Your task to perform on an android device: Open the downloads Image 0: 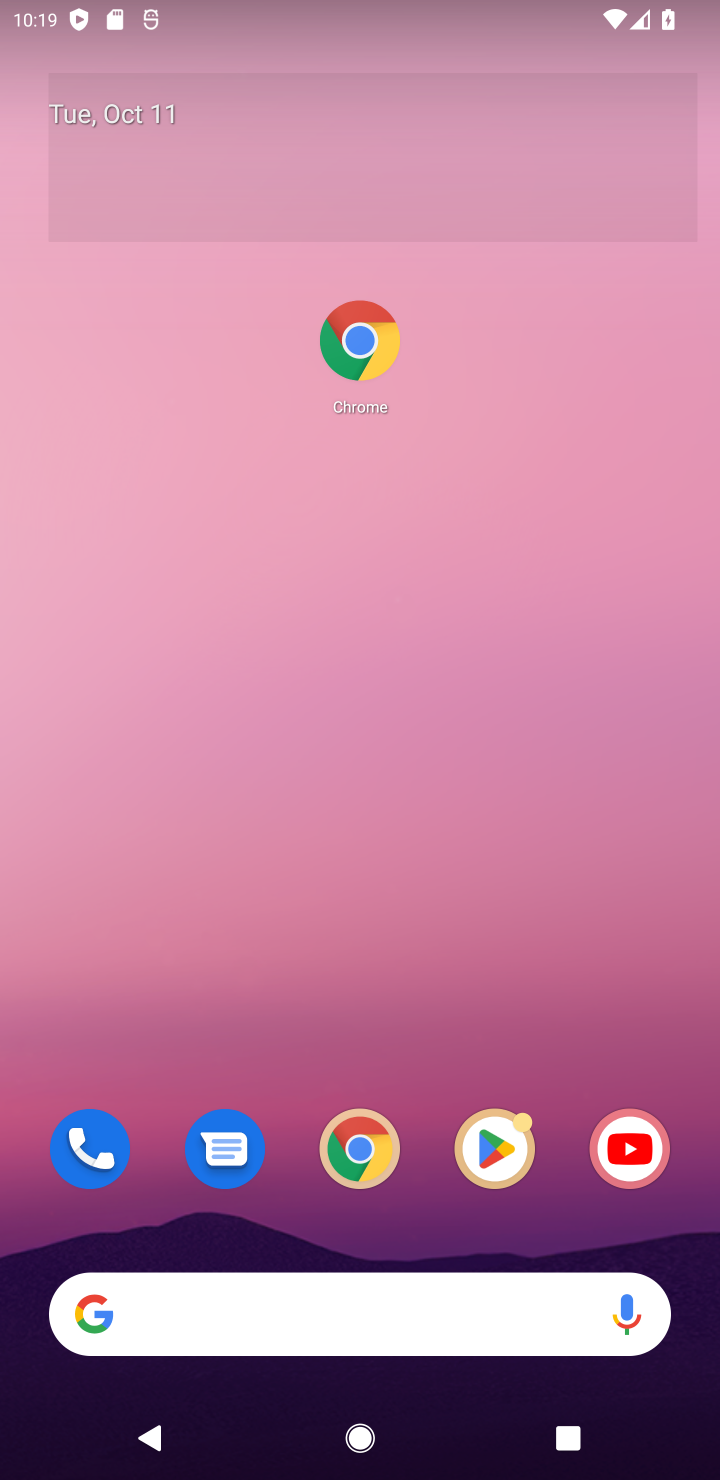
Step 0: drag from (275, 641) to (324, 137)
Your task to perform on an android device: Open the downloads Image 1: 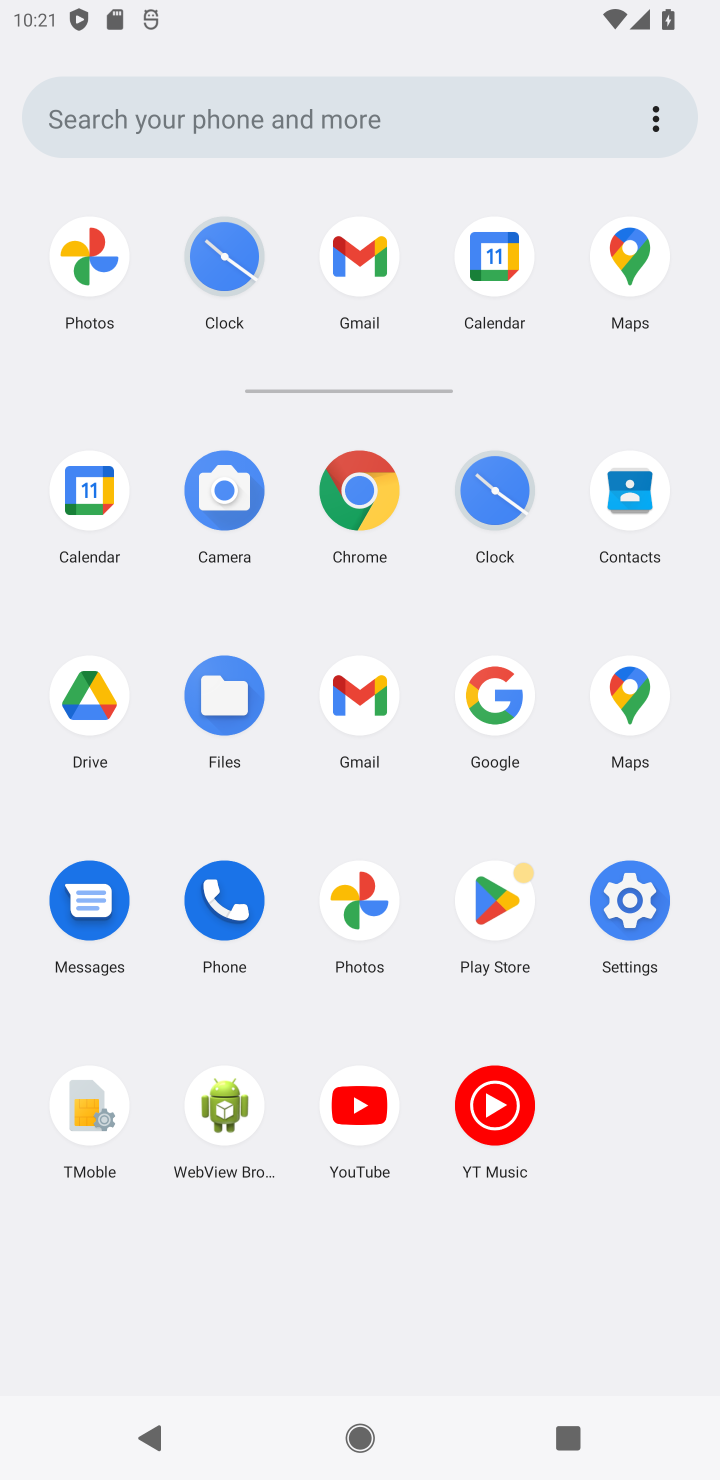
Step 1: click (506, 900)
Your task to perform on an android device: Open the downloads Image 2: 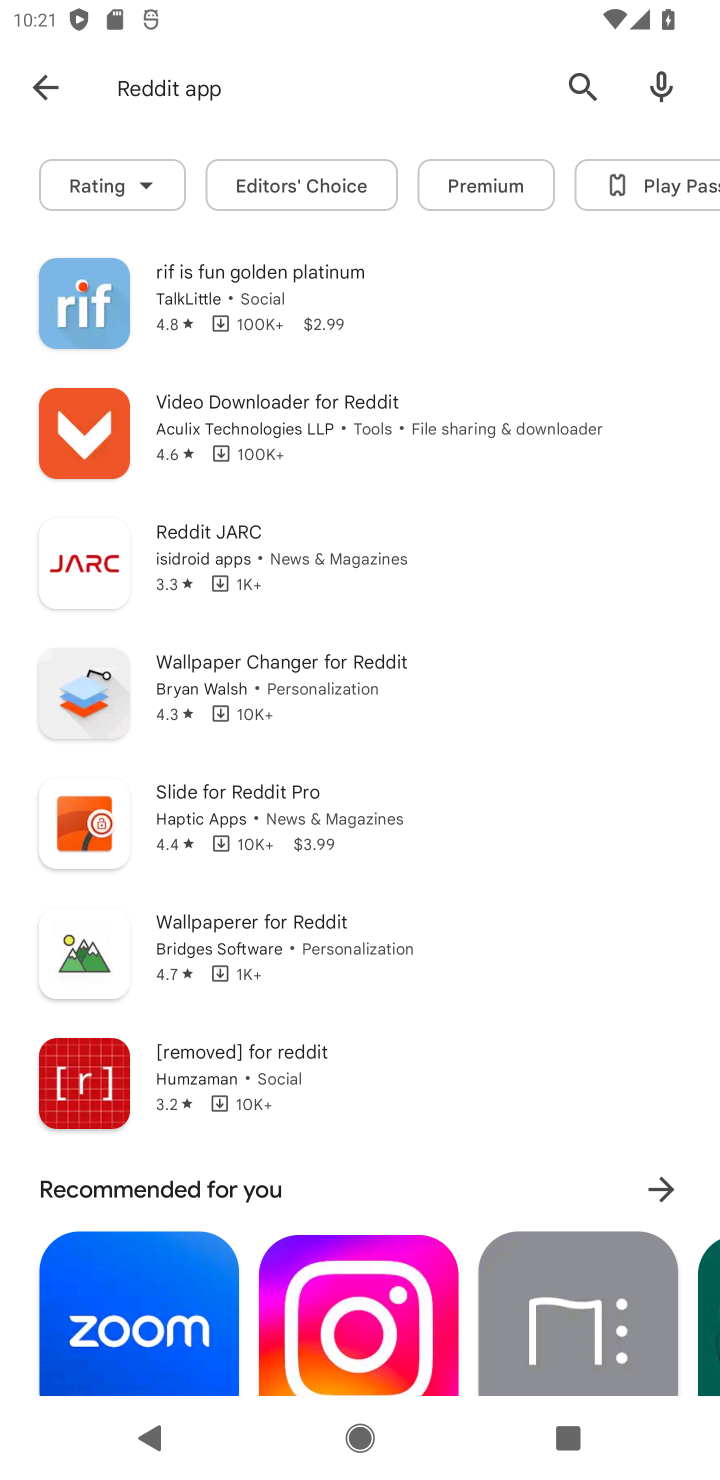
Step 2: press back button
Your task to perform on an android device: Open the downloads Image 3: 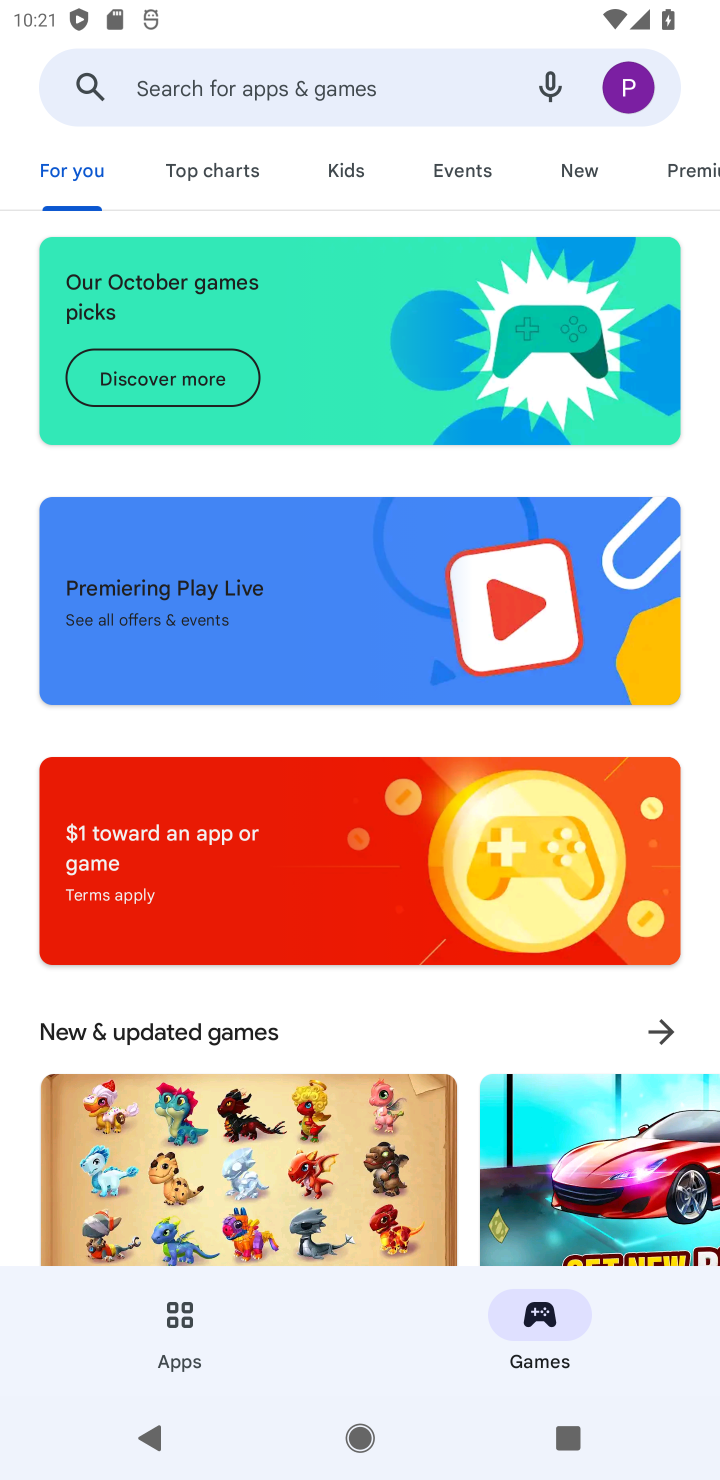
Step 3: click (193, 1308)
Your task to perform on an android device: Open the downloads Image 4: 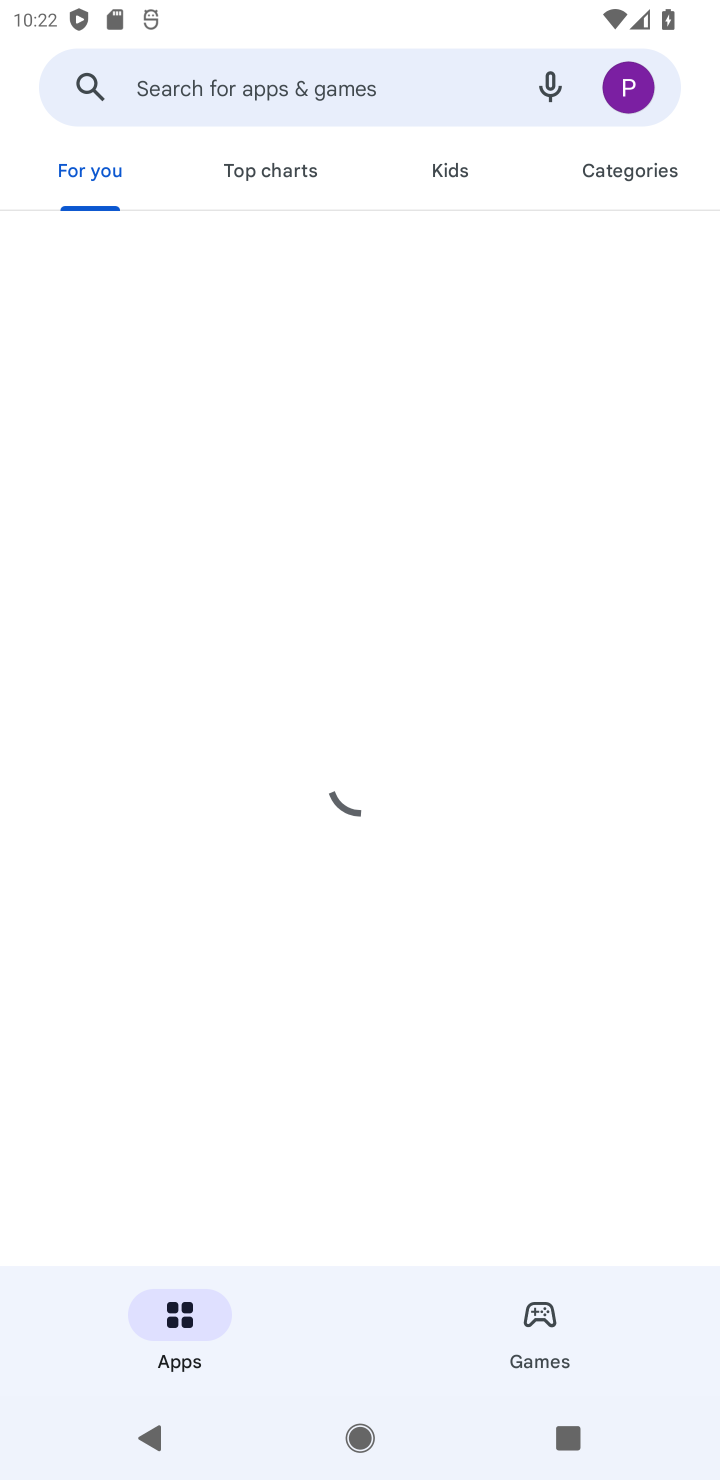
Step 4: task complete